Your task to perform on an android device: turn off location history Image 0: 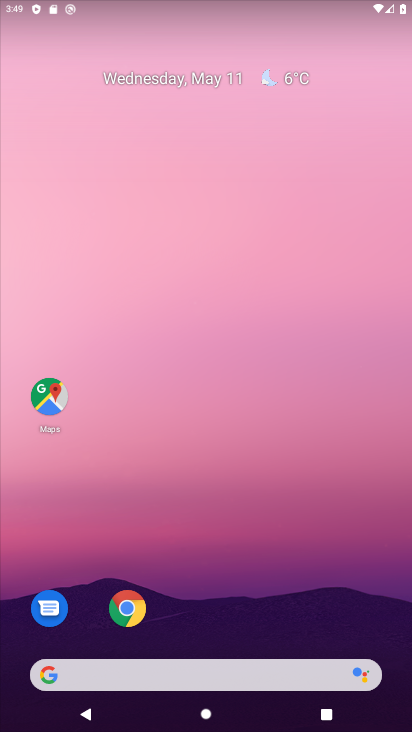
Step 0: click (124, 602)
Your task to perform on an android device: turn off location history Image 1: 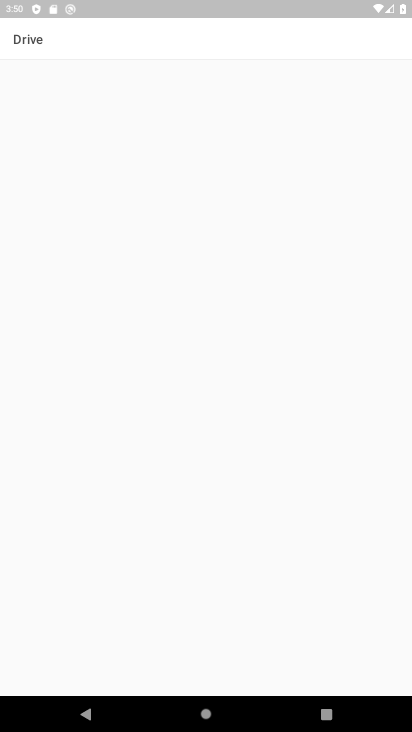
Step 1: press home button
Your task to perform on an android device: turn off location history Image 2: 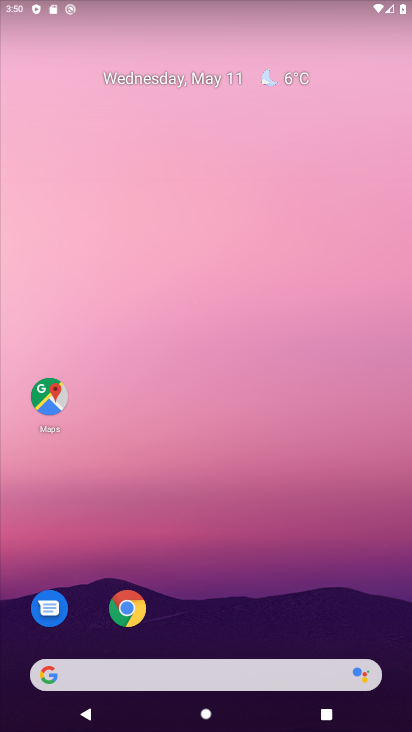
Step 2: drag from (242, 727) to (240, 206)
Your task to perform on an android device: turn off location history Image 3: 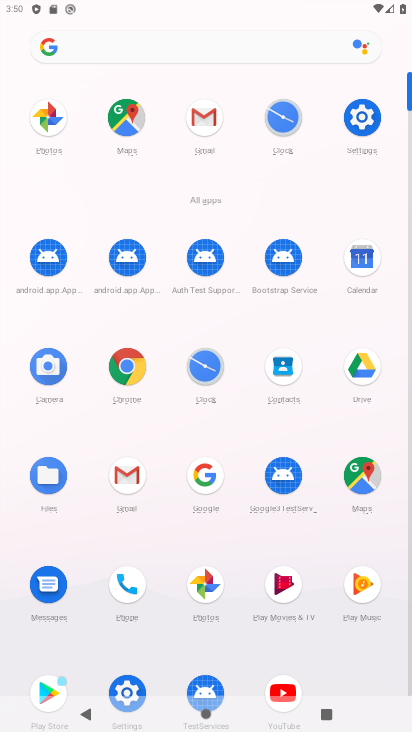
Step 3: click (358, 108)
Your task to perform on an android device: turn off location history Image 4: 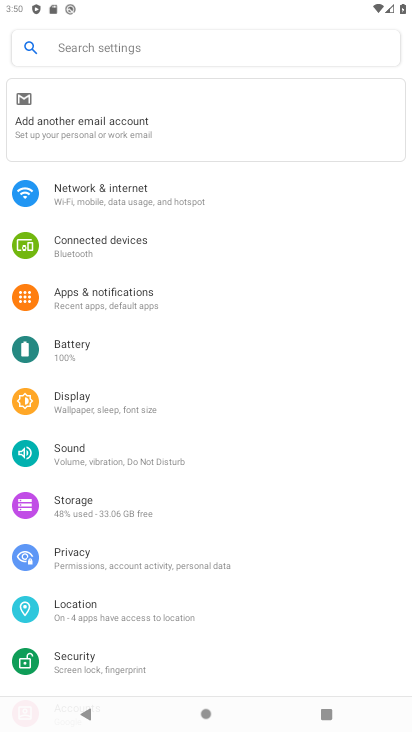
Step 4: click (74, 607)
Your task to perform on an android device: turn off location history Image 5: 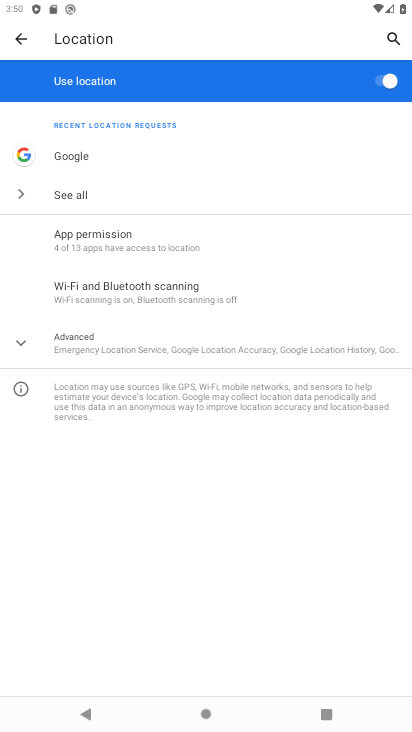
Step 5: click (114, 340)
Your task to perform on an android device: turn off location history Image 6: 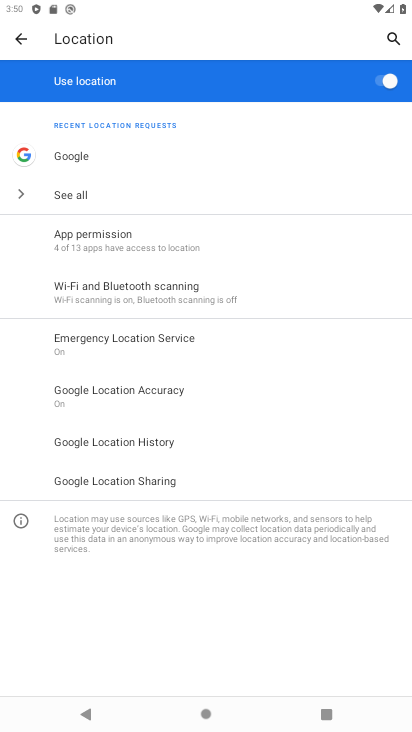
Step 6: click (142, 440)
Your task to perform on an android device: turn off location history Image 7: 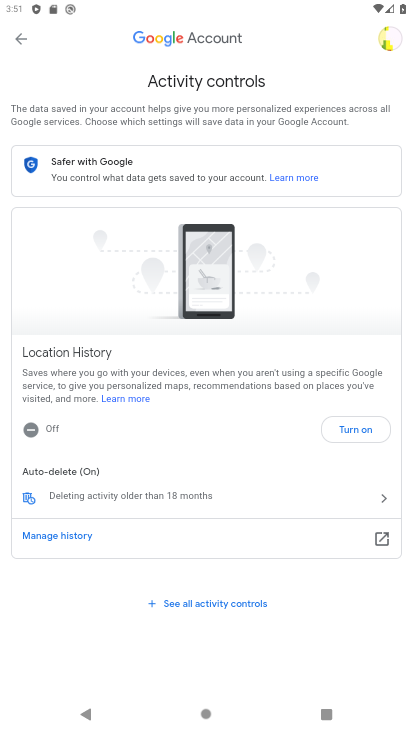
Step 7: task complete